Your task to perform on an android device: open app "Truecaller" (install if not already installed), go to login, and select forgot password Image 0: 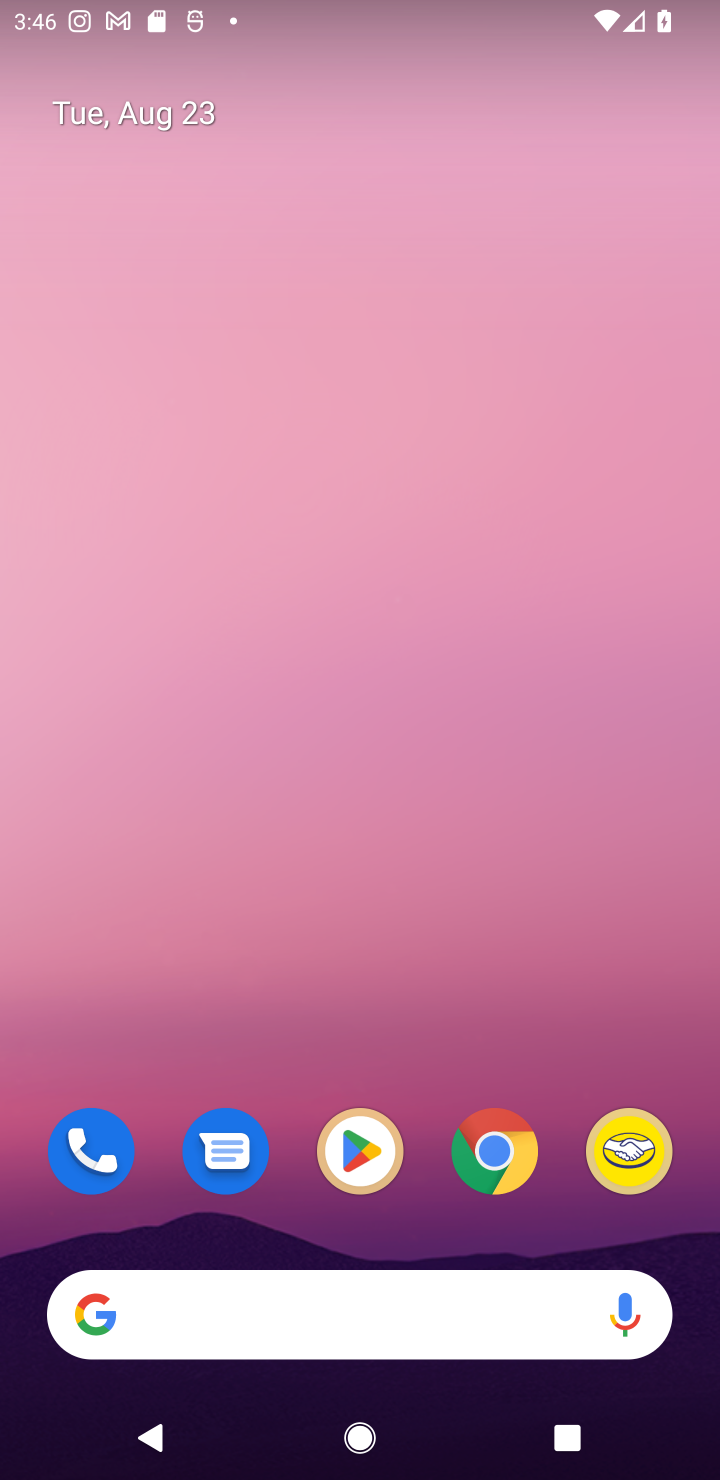
Step 0: press home button
Your task to perform on an android device: open app "Truecaller" (install if not already installed), go to login, and select forgot password Image 1: 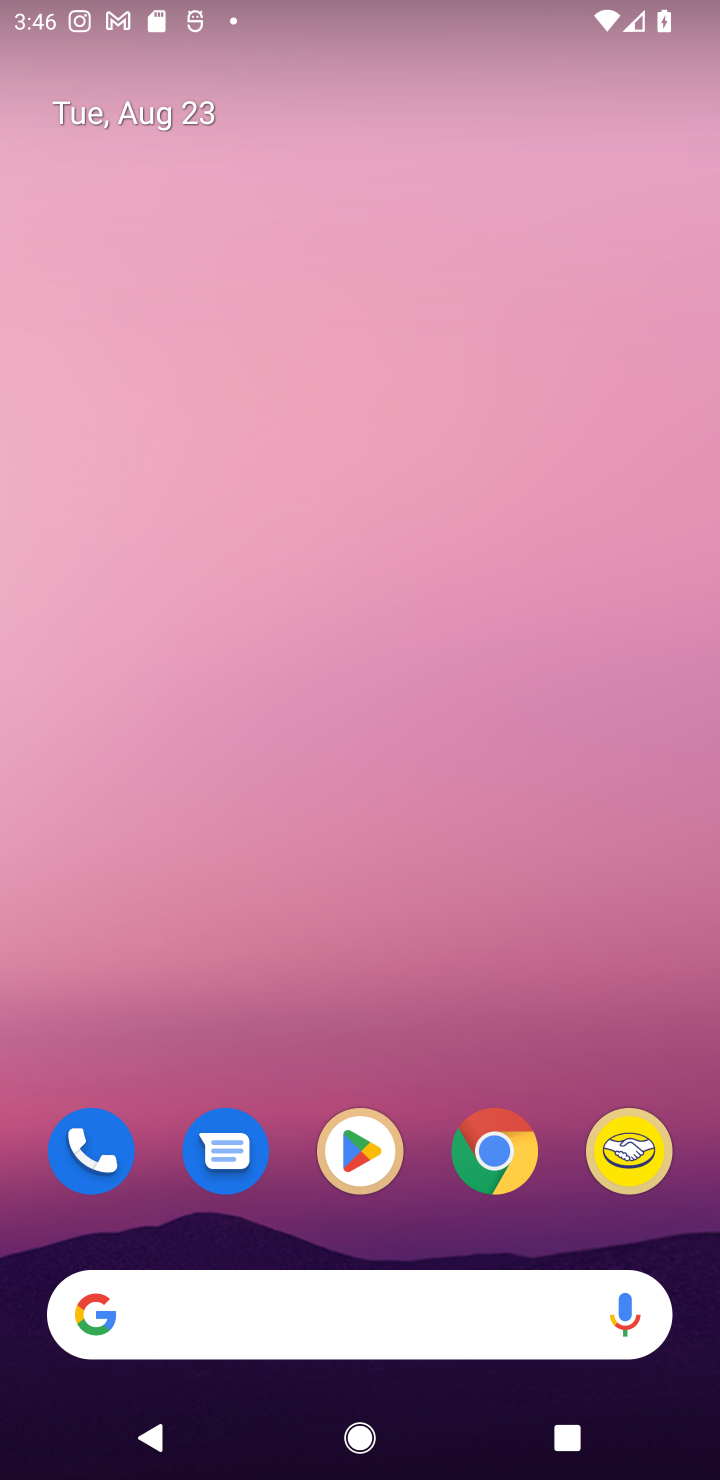
Step 1: click (351, 1138)
Your task to perform on an android device: open app "Truecaller" (install if not already installed), go to login, and select forgot password Image 2: 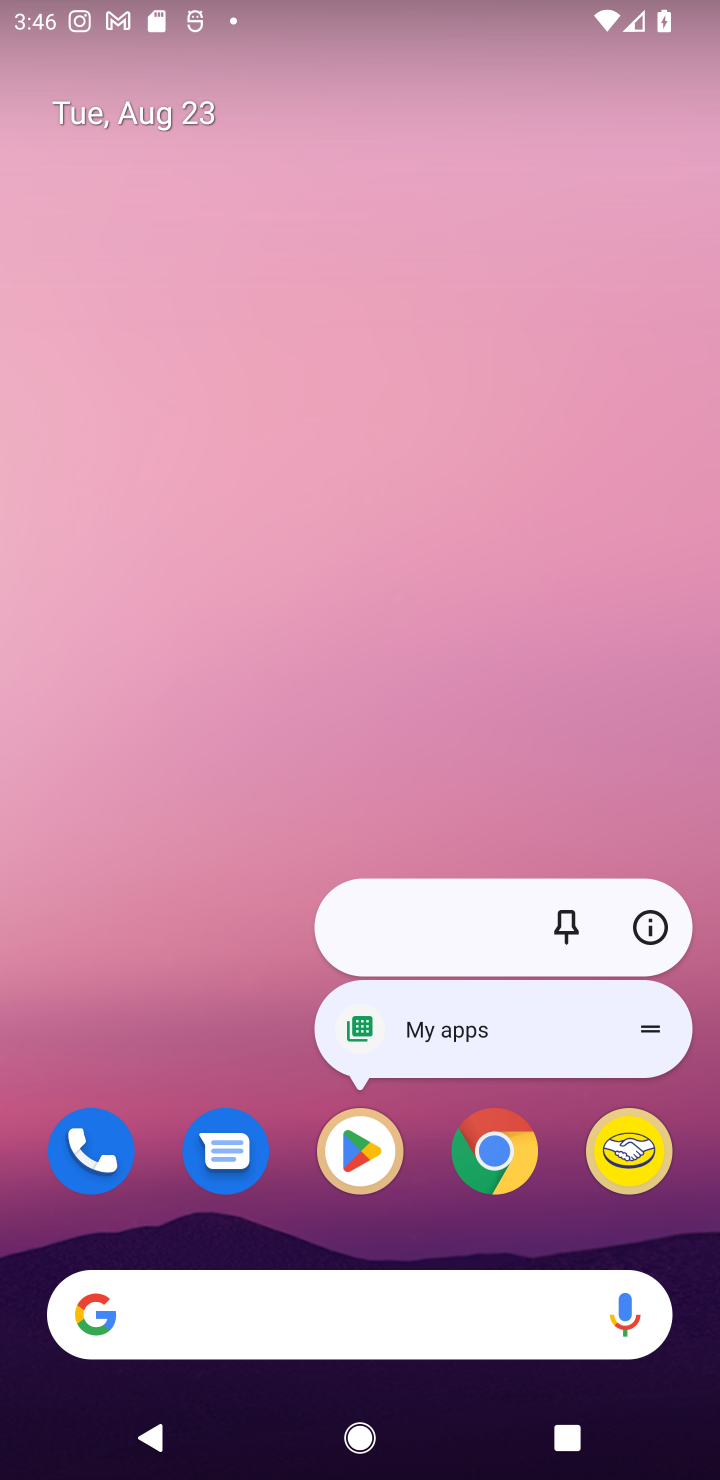
Step 2: click (351, 1142)
Your task to perform on an android device: open app "Truecaller" (install if not already installed), go to login, and select forgot password Image 3: 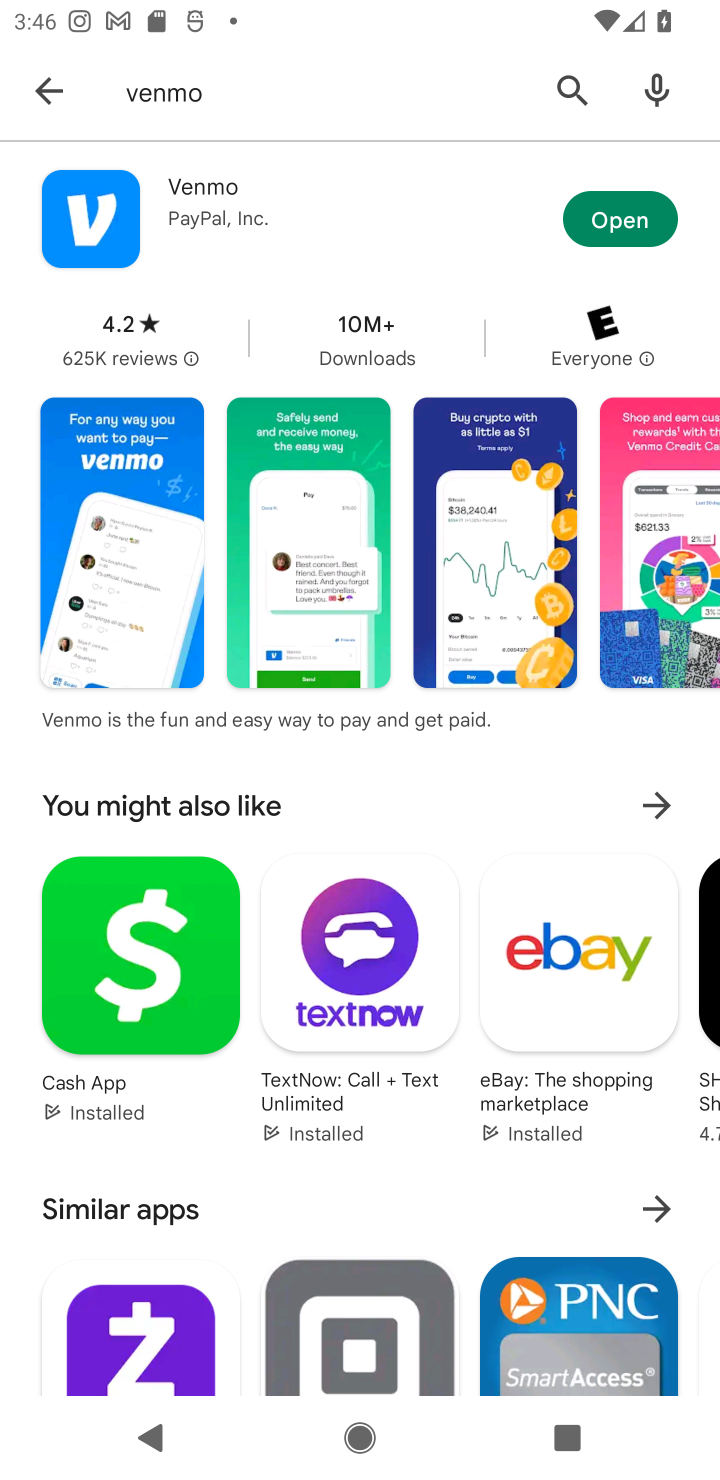
Step 3: click (566, 71)
Your task to perform on an android device: open app "Truecaller" (install if not already installed), go to login, and select forgot password Image 4: 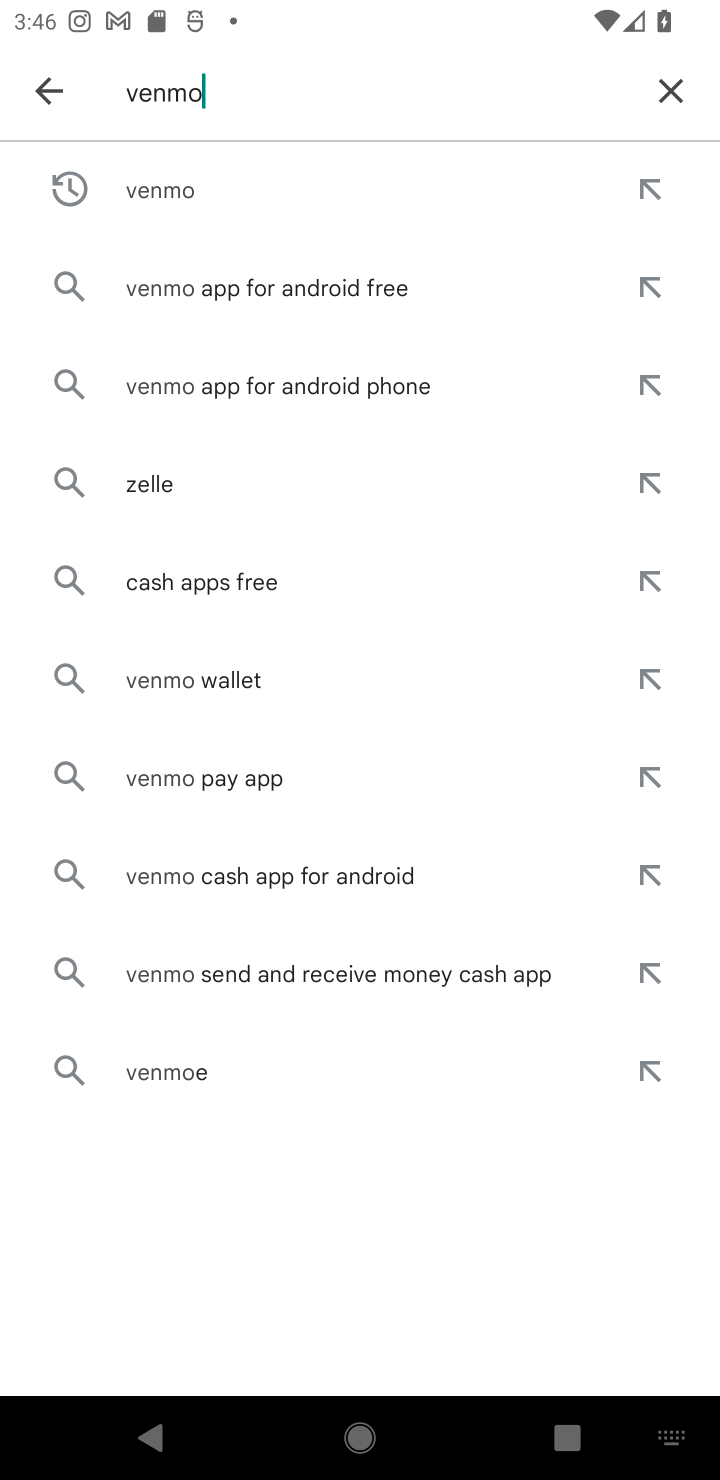
Step 4: click (664, 90)
Your task to perform on an android device: open app "Truecaller" (install if not already installed), go to login, and select forgot password Image 5: 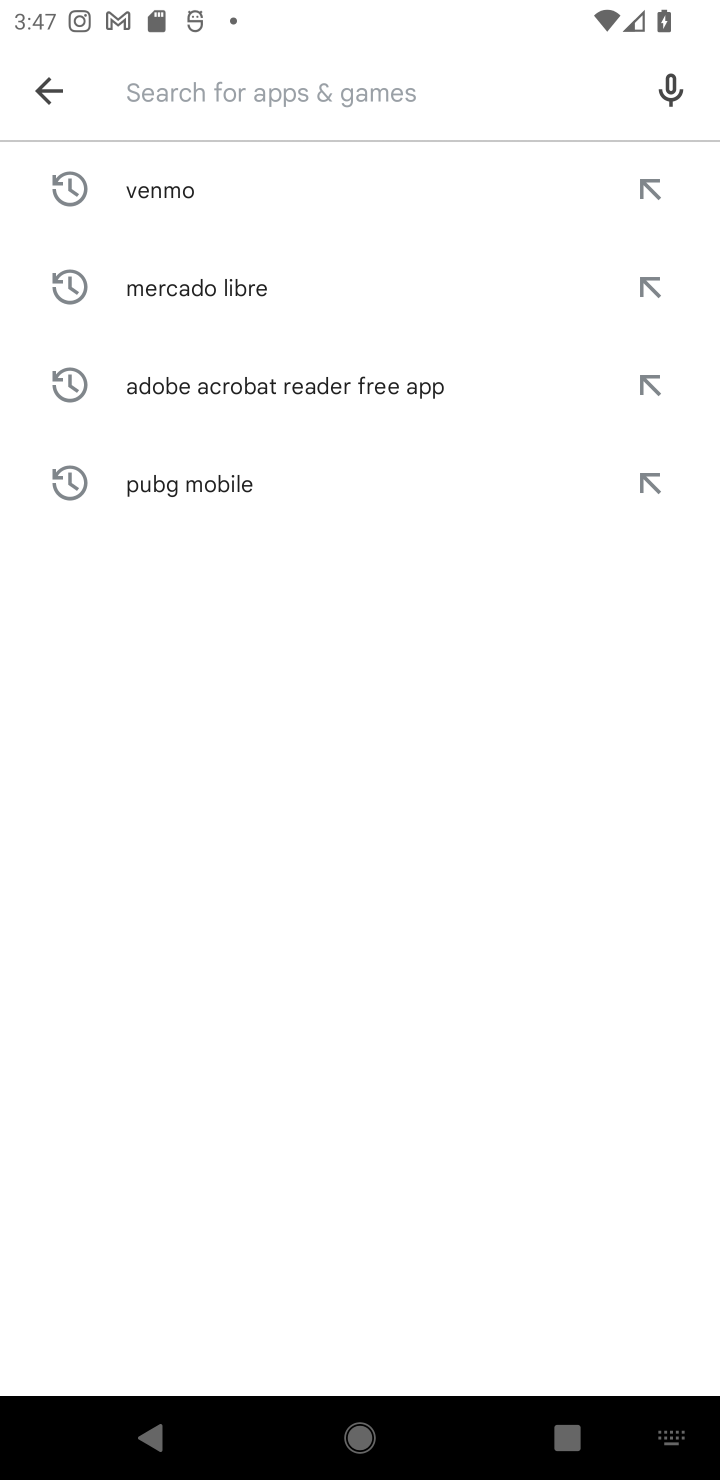
Step 5: type "Truecaller"
Your task to perform on an android device: open app "Truecaller" (install if not already installed), go to login, and select forgot password Image 6: 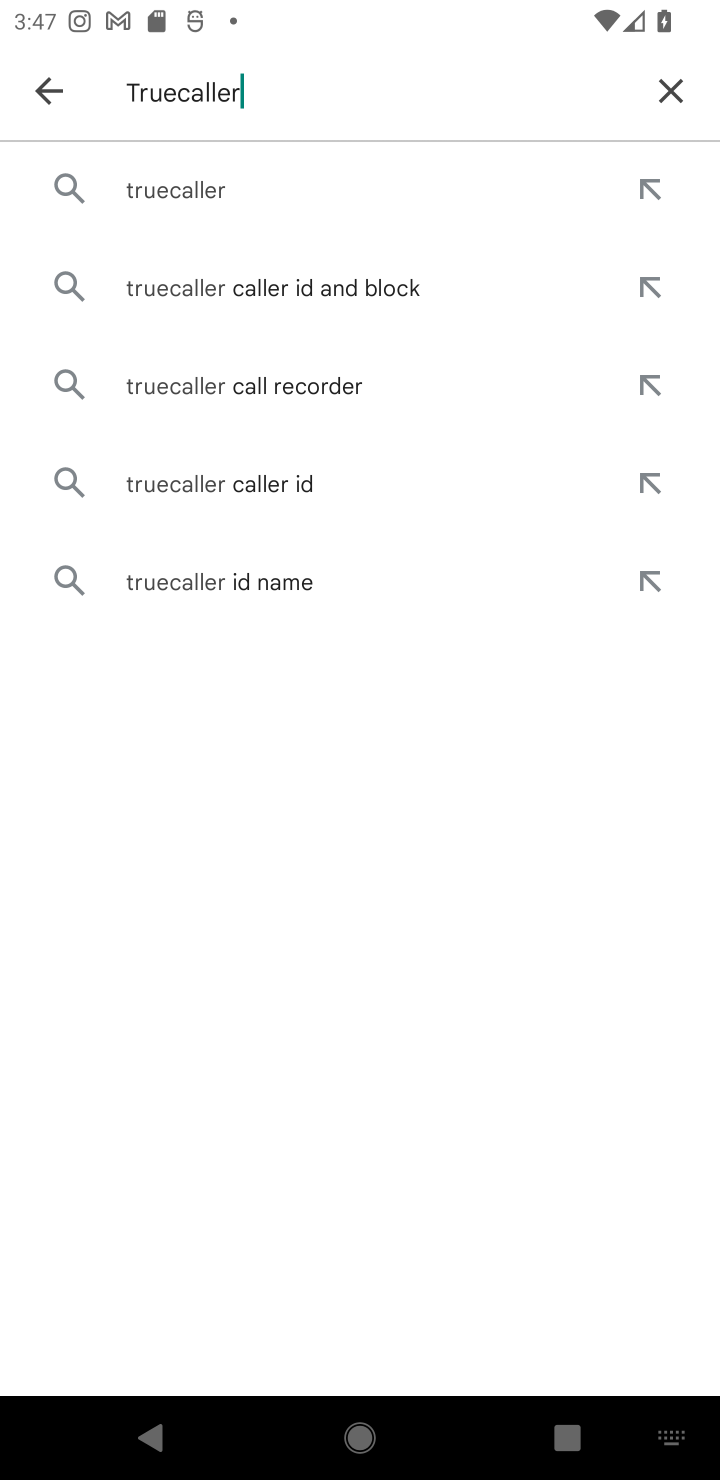
Step 6: click (201, 197)
Your task to perform on an android device: open app "Truecaller" (install if not already installed), go to login, and select forgot password Image 7: 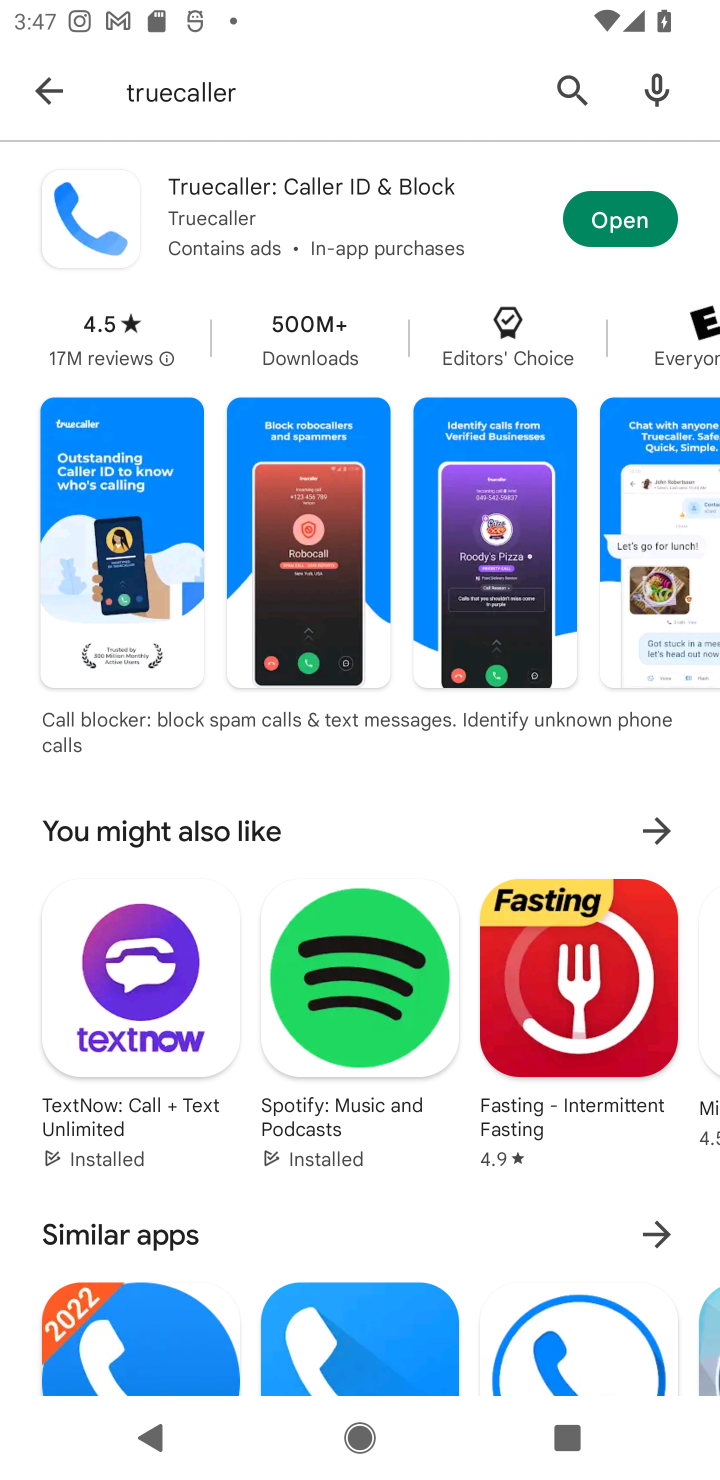
Step 7: click (629, 219)
Your task to perform on an android device: open app "Truecaller" (install if not already installed), go to login, and select forgot password Image 8: 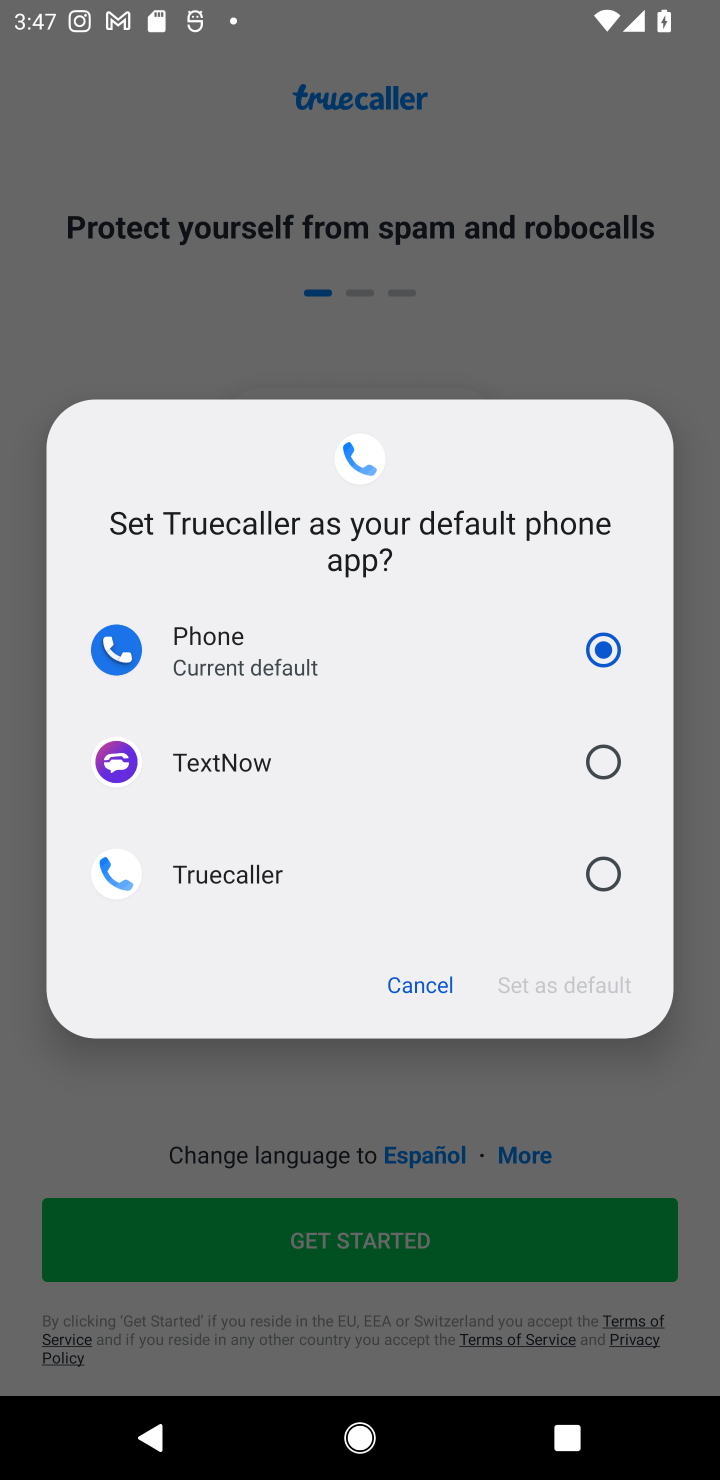
Step 8: task complete